Your task to perform on an android device: Show me recent news Image 0: 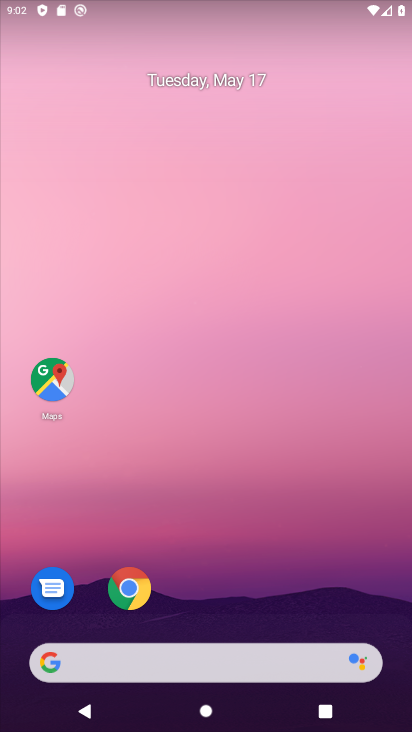
Step 0: drag from (247, 612) to (282, 164)
Your task to perform on an android device: Show me recent news Image 1: 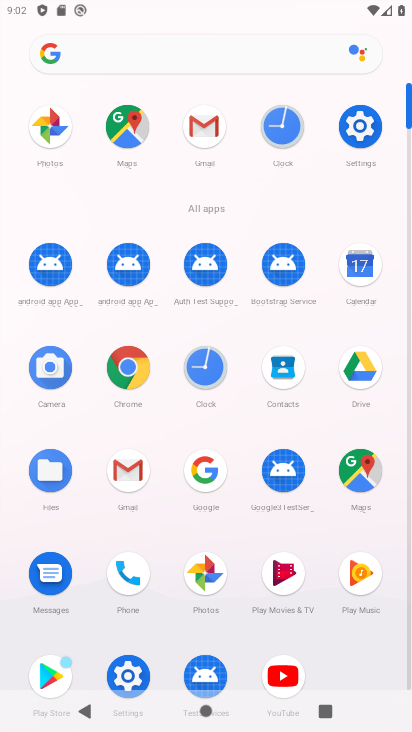
Step 1: drag from (176, 594) to (263, 194)
Your task to perform on an android device: Show me recent news Image 2: 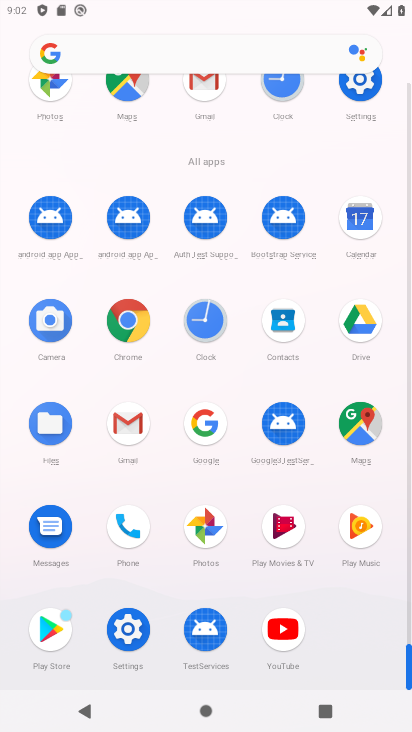
Step 2: click (137, 322)
Your task to perform on an android device: Show me recent news Image 3: 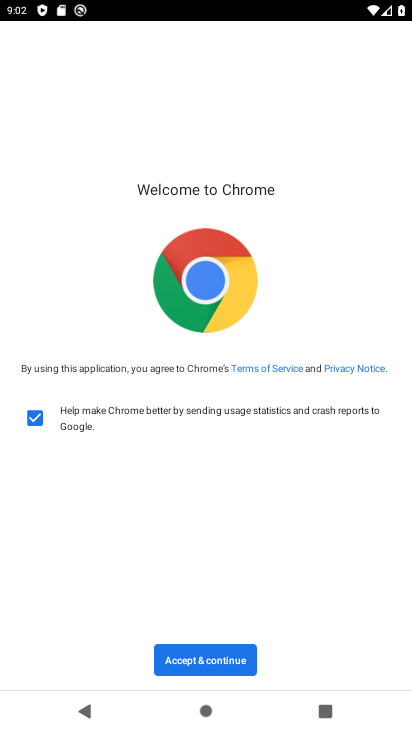
Step 3: click (186, 657)
Your task to perform on an android device: Show me recent news Image 4: 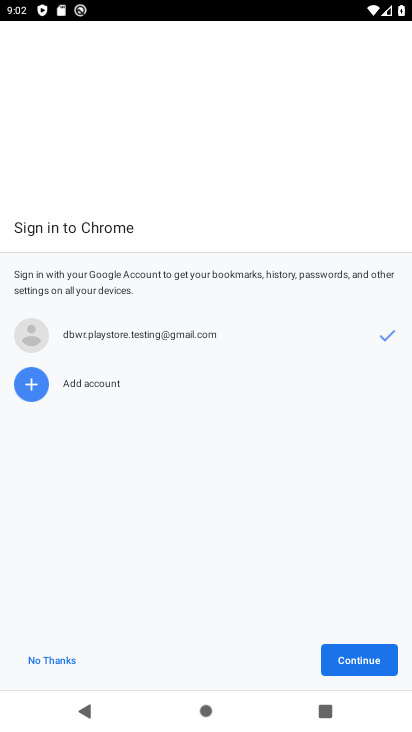
Step 4: click (381, 650)
Your task to perform on an android device: Show me recent news Image 5: 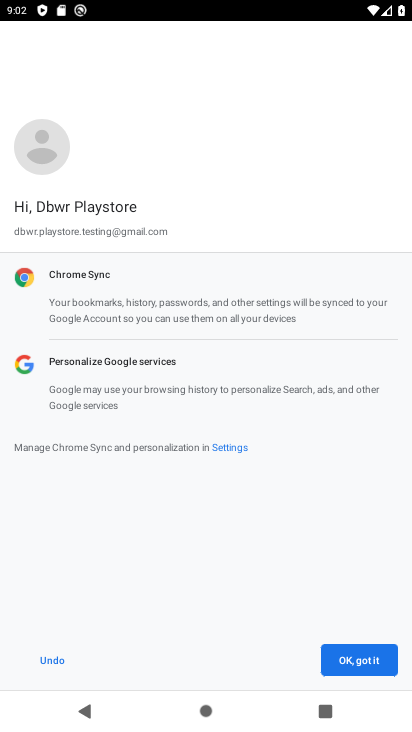
Step 5: click (369, 660)
Your task to perform on an android device: Show me recent news Image 6: 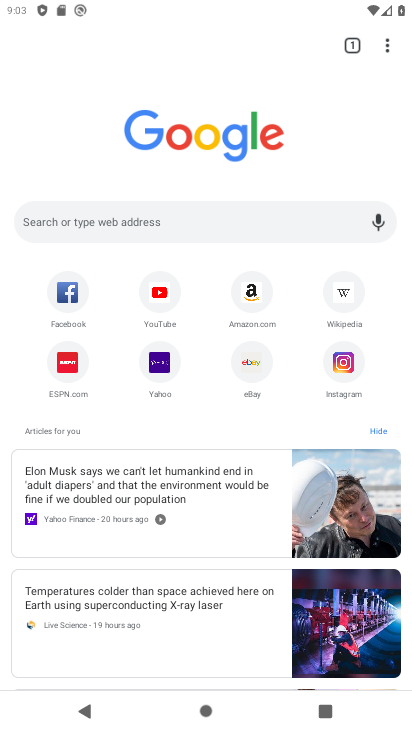
Step 6: click (161, 213)
Your task to perform on an android device: Show me recent news Image 7: 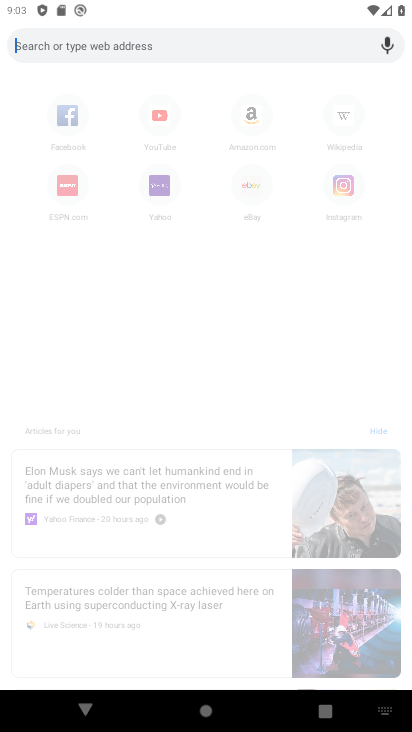
Step 7: type "Show me recent news"
Your task to perform on an android device: Show me recent news Image 8: 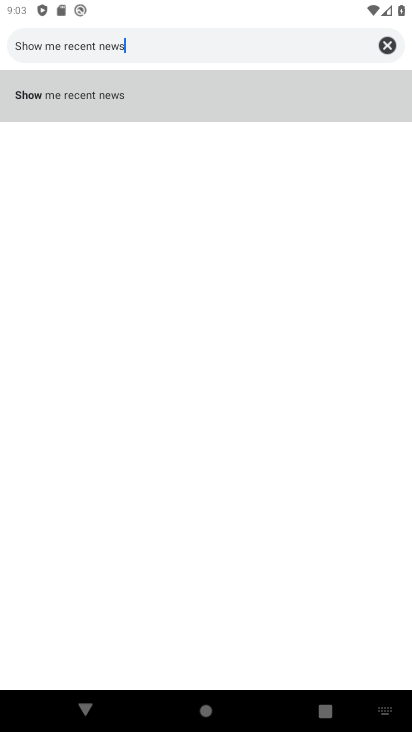
Step 8: click (61, 89)
Your task to perform on an android device: Show me recent news Image 9: 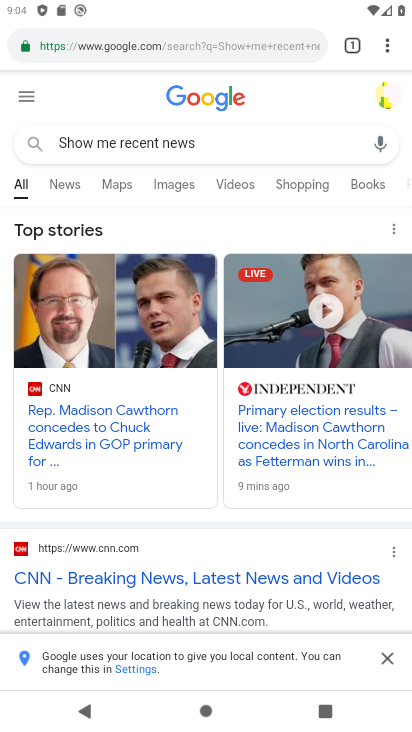
Step 9: task complete